Your task to perform on an android device: Go to Google maps Image 0: 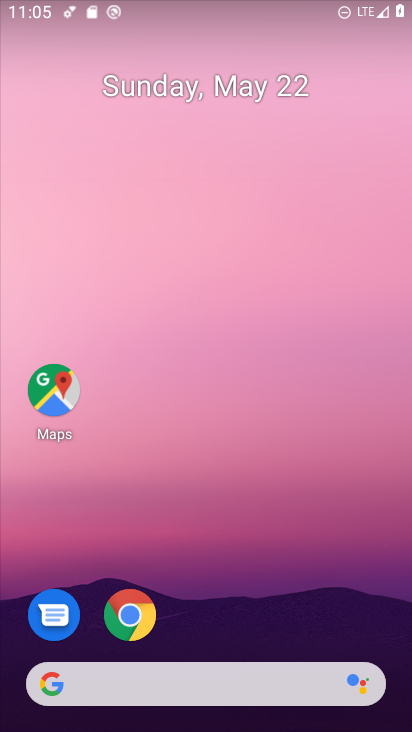
Step 0: click (51, 389)
Your task to perform on an android device: Go to Google maps Image 1: 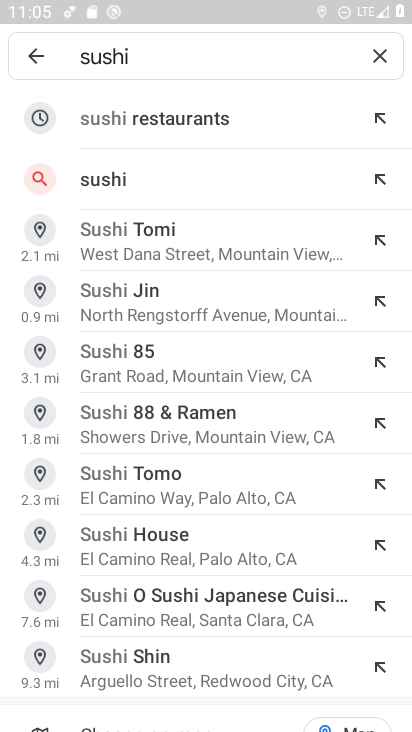
Step 1: task complete